Your task to perform on an android device: see sites visited before in the chrome app Image 0: 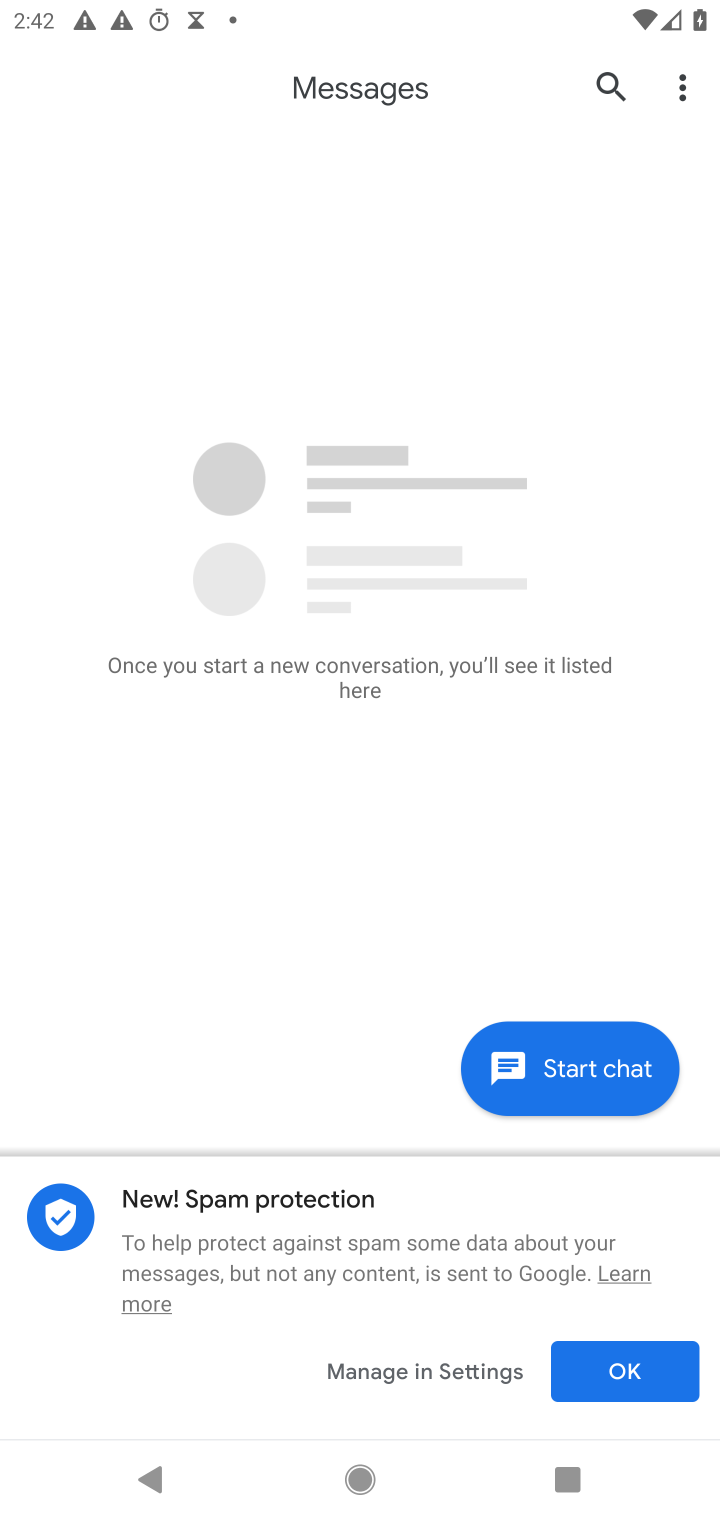
Step 0: press home button
Your task to perform on an android device: see sites visited before in the chrome app Image 1: 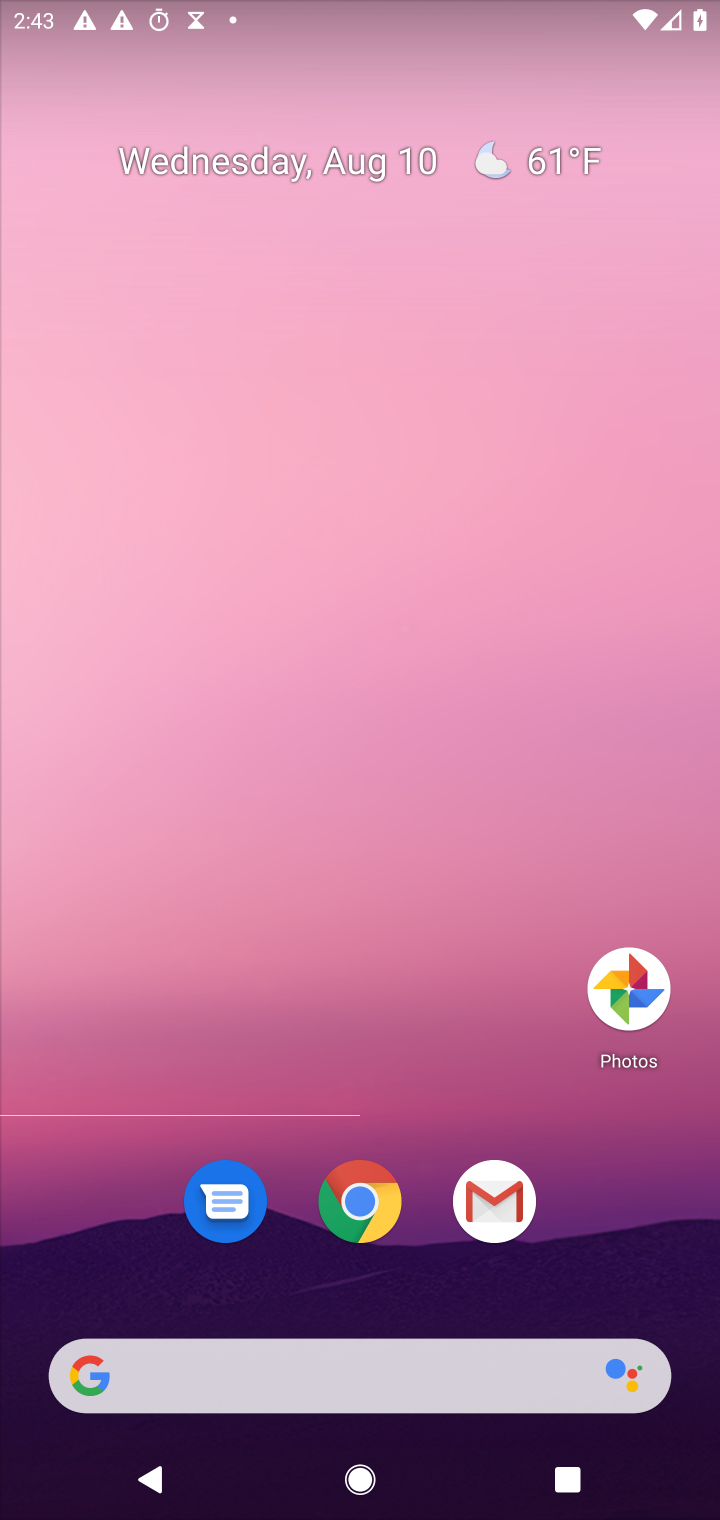
Step 1: click (380, 1206)
Your task to perform on an android device: see sites visited before in the chrome app Image 2: 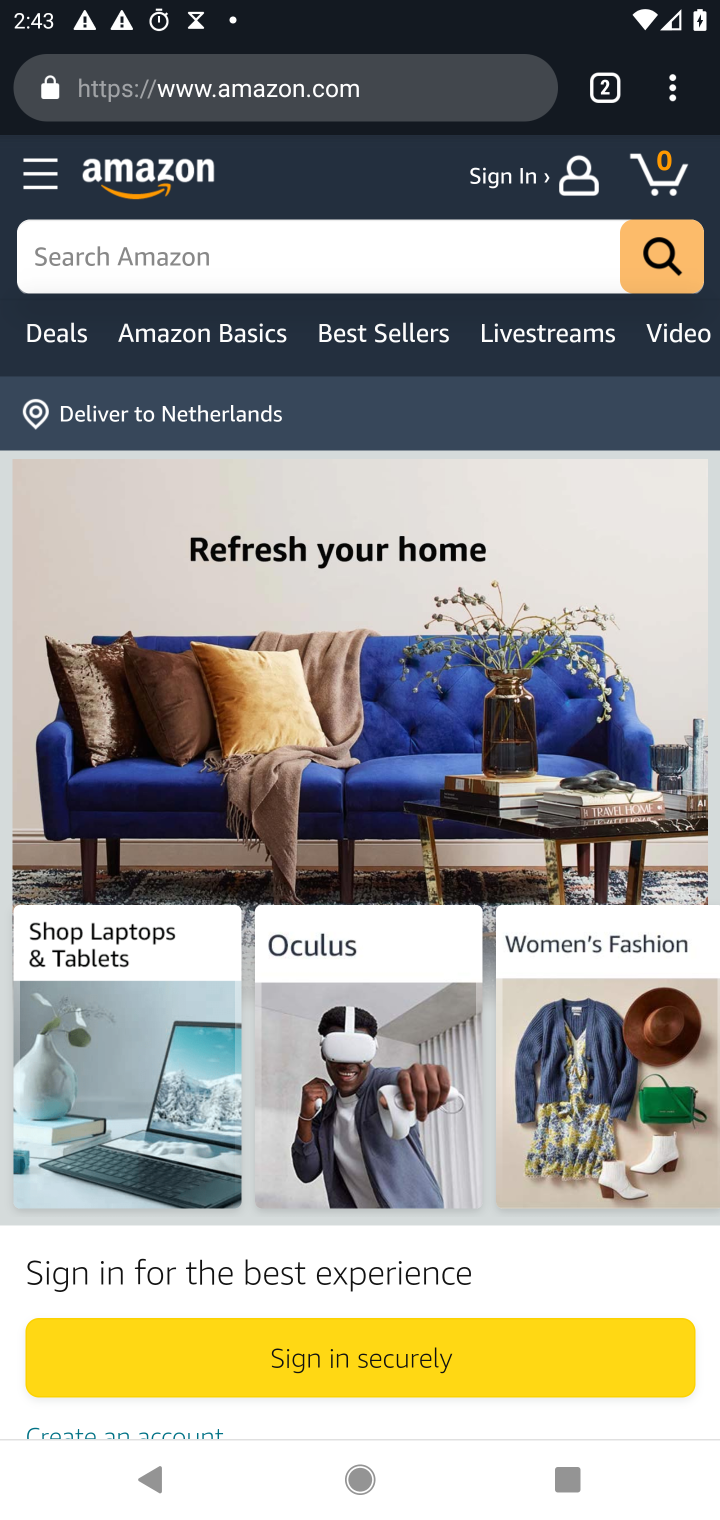
Step 2: task complete